Your task to perform on an android device: Open privacy settings Image 0: 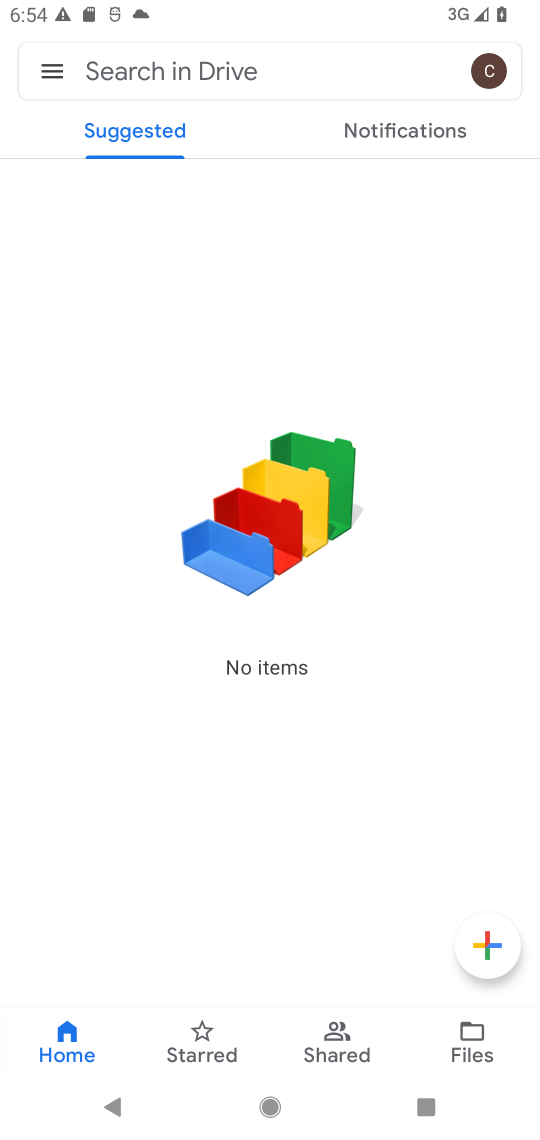
Step 0: press home button
Your task to perform on an android device: Open privacy settings Image 1: 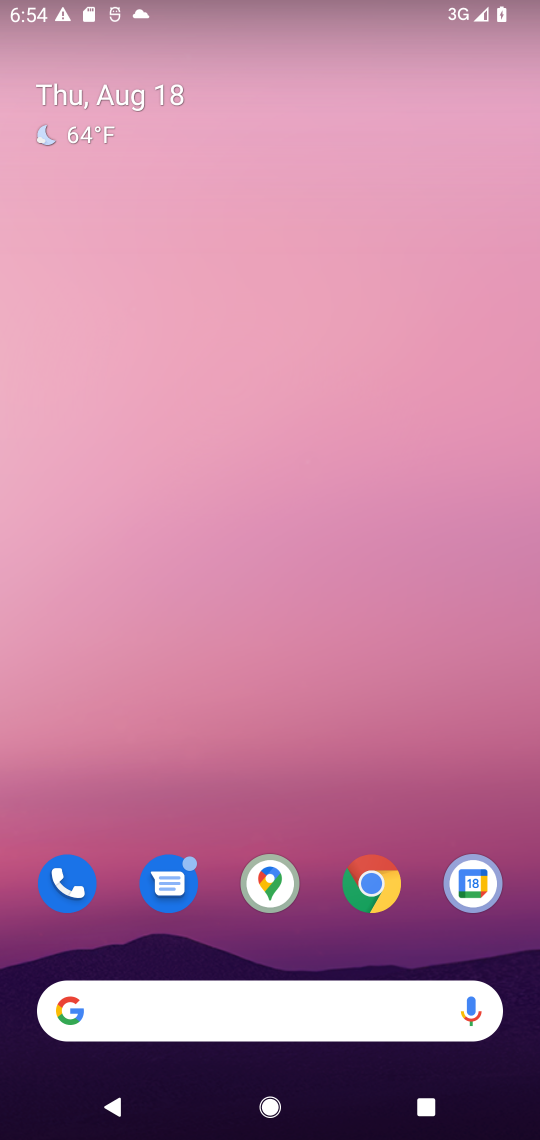
Step 1: drag from (56, 1060) to (200, 178)
Your task to perform on an android device: Open privacy settings Image 2: 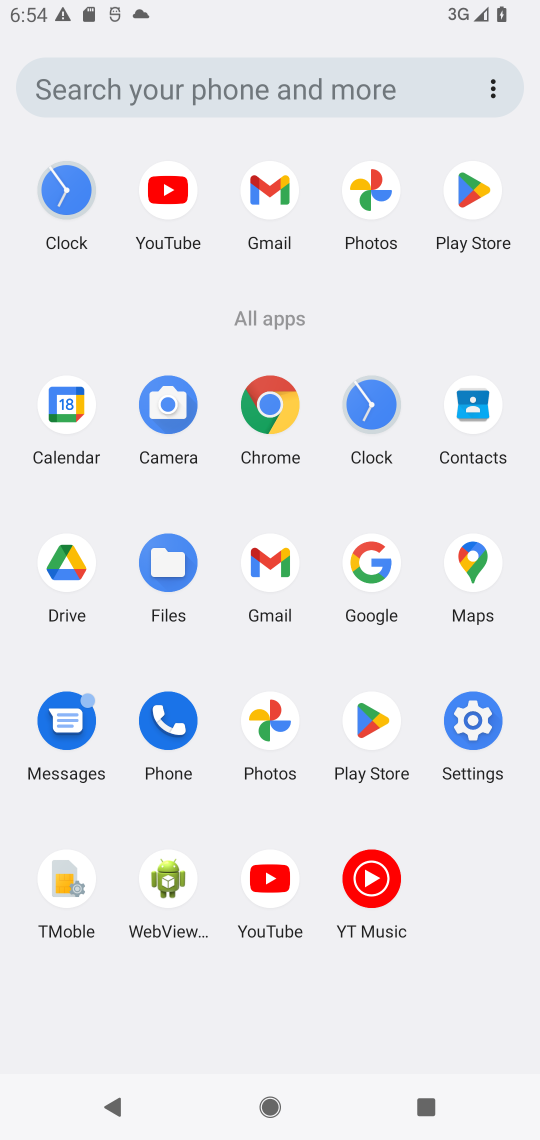
Step 2: click (466, 741)
Your task to perform on an android device: Open privacy settings Image 3: 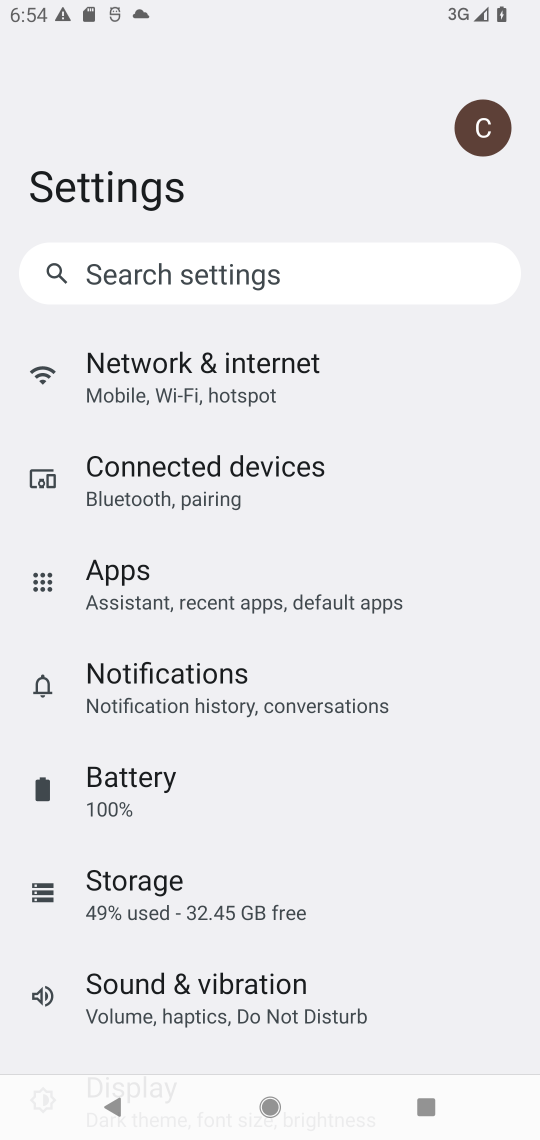
Step 3: drag from (437, 1004) to (331, 404)
Your task to perform on an android device: Open privacy settings Image 4: 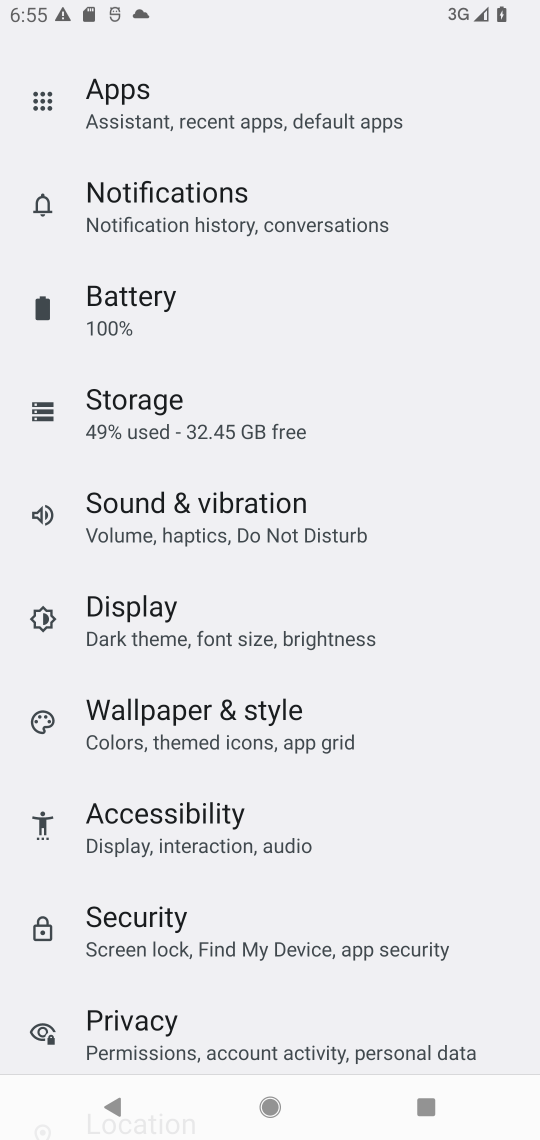
Step 4: click (158, 1009)
Your task to perform on an android device: Open privacy settings Image 5: 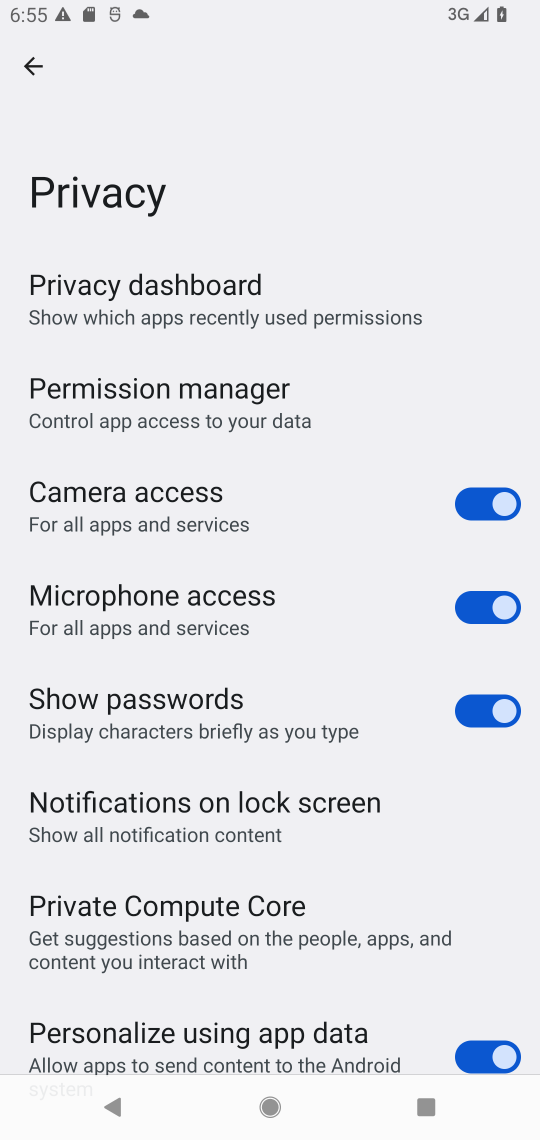
Step 5: task complete